Your task to perform on an android device: Play the last video I watched on Youtube Image 0: 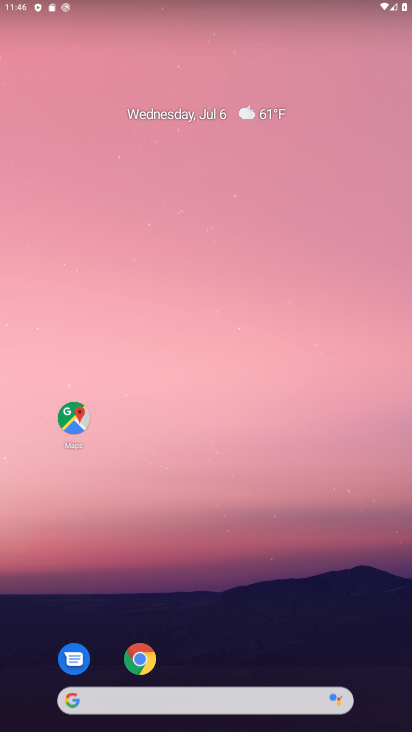
Step 0: drag from (285, 543) to (281, 36)
Your task to perform on an android device: Play the last video I watched on Youtube Image 1: 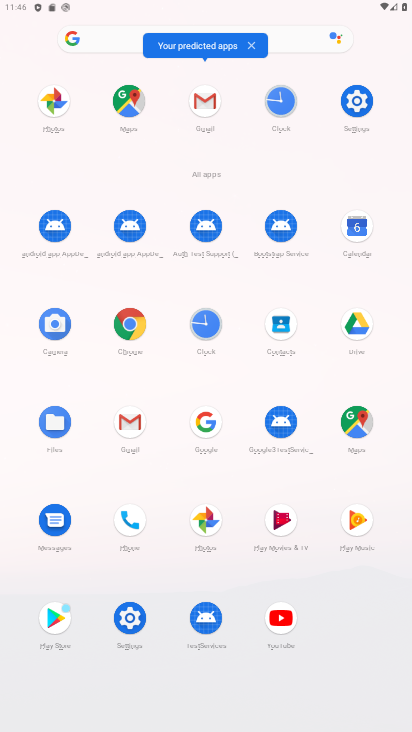
Step 1: click (278, 618)
Your task to perform on an android device: Play the last video I watched on Youtube Image 2: 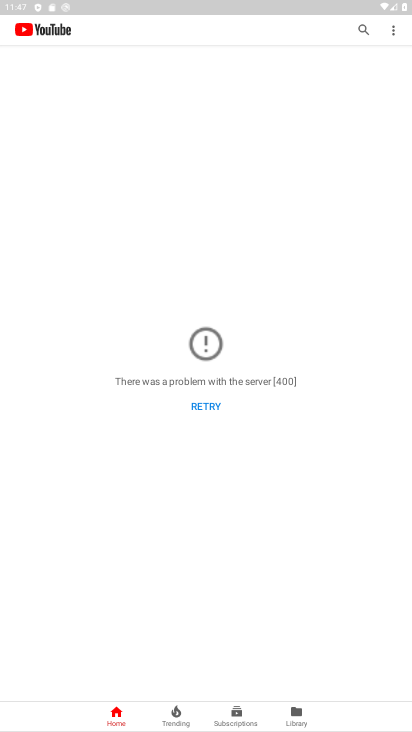
Step 2: click (307, 713)
Your task to perform on an android device: Play the last video I watched on Youtube Image 3: 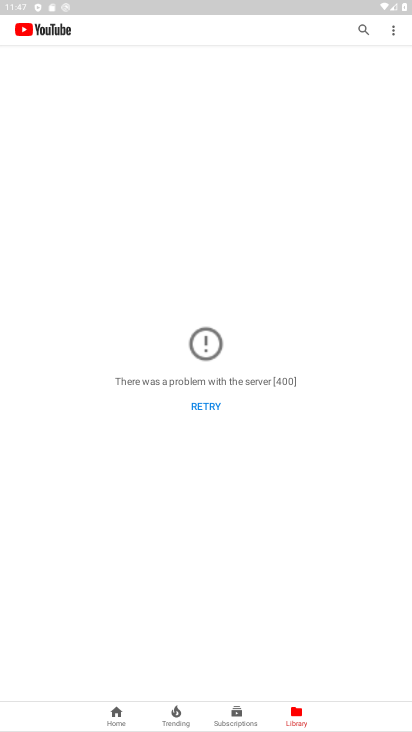
Step 3: task complete